Your task to perform on an android device: change the clock display to digital Image 0: 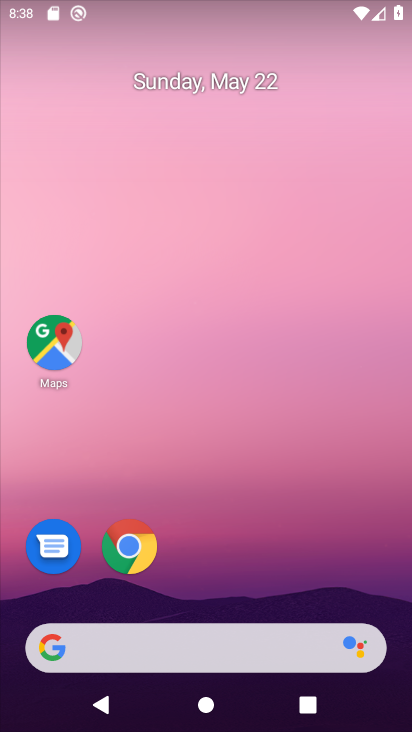
Step 0: drag from (376, 596) to (356, 178)
Your task to perform on an android device: change the clock display to digital Image 1: 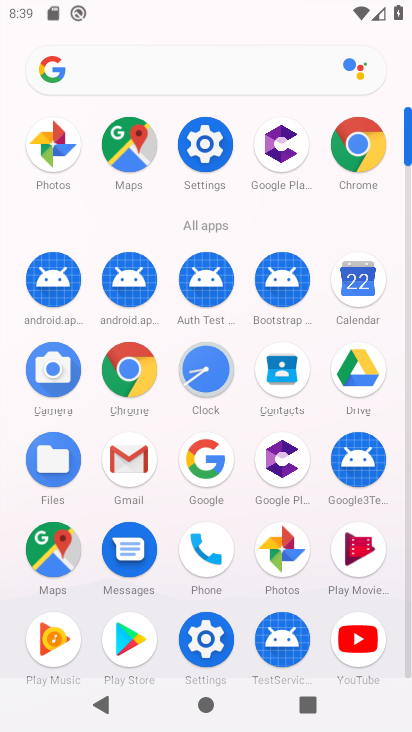
Step 1: click (191, 375)
Your task to perform on an android device: change the clock display to digital Image 2: 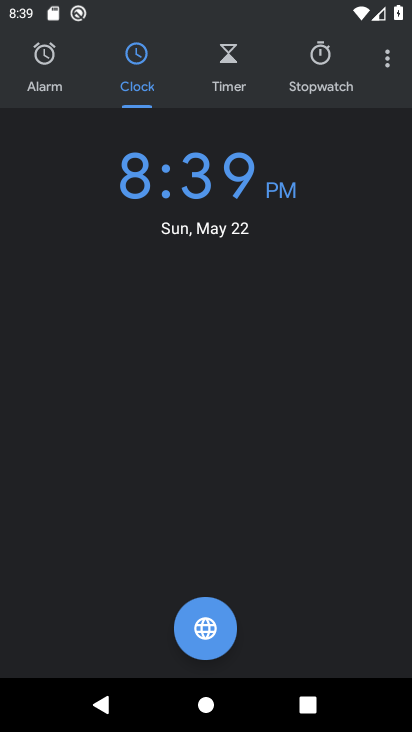
Step 2: click (387, 71)
Your task to perform on an android device: change the clock display to digital Image 3: 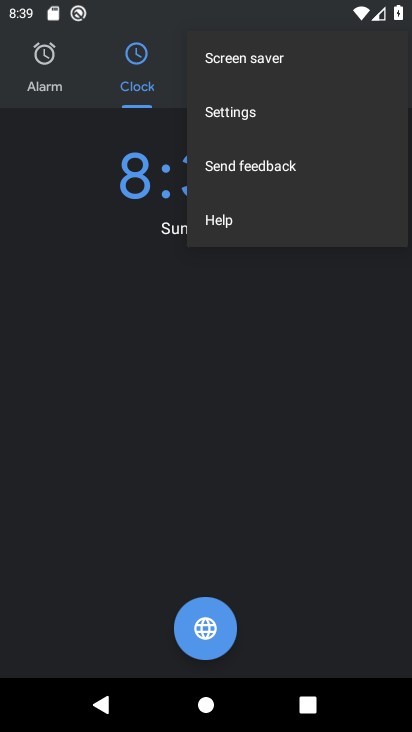
Step 3: click (255, 115)
Your task to perform on an android device: change the clock display to digital Image 4: 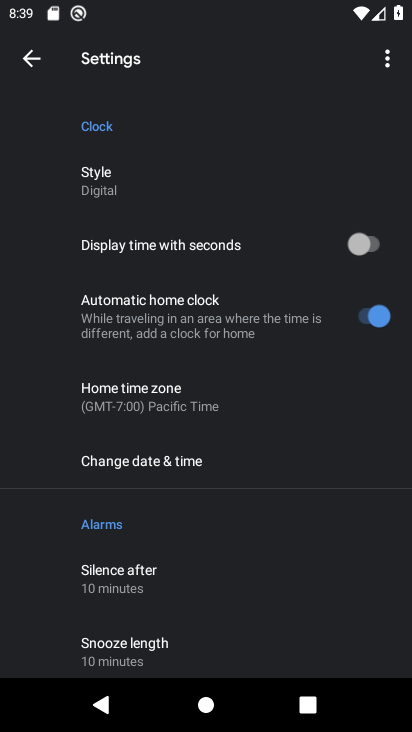
Step 4: task complete